Your task to perform on an android device: Search for sushi restaurants on Maps Image 0: 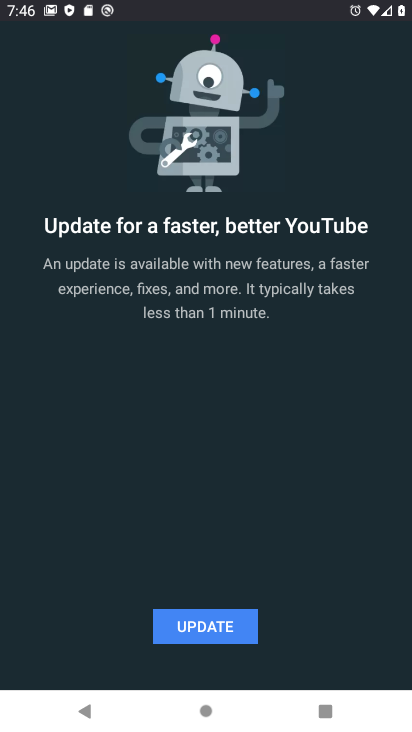
Step 0: press home button
Your task to perform on an android device: Search for sushi restaurants on Maps Image 1: 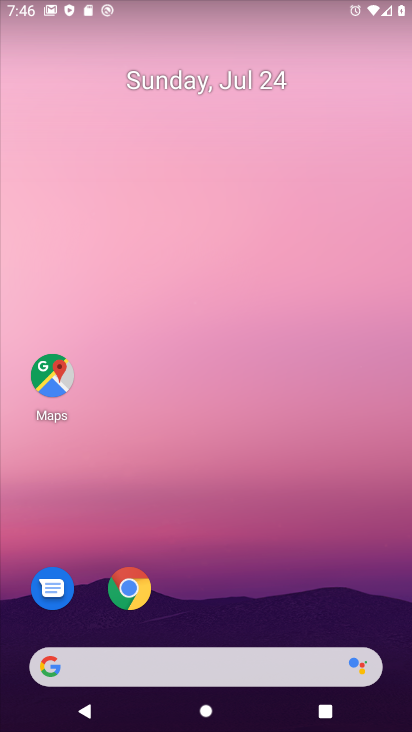
Step 1: drag from (271, 584) to (347, 175)
Your task to perform on an android device: Search for sushi restaurants on Maps Image 2: 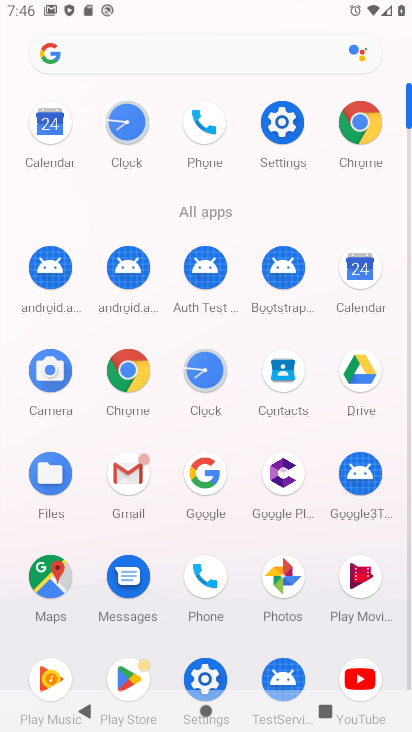
Step 2: click (47, 576)
Your task to perform on an android device: Search for sushi restaurants on Maps Image 3: 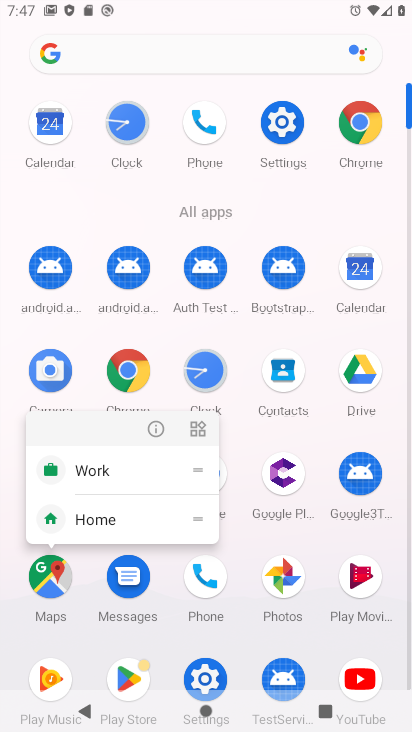
Step 3: click (48, 589)
Your task to perform on an android device: Search for sushi restaurants on Maps Image 4: 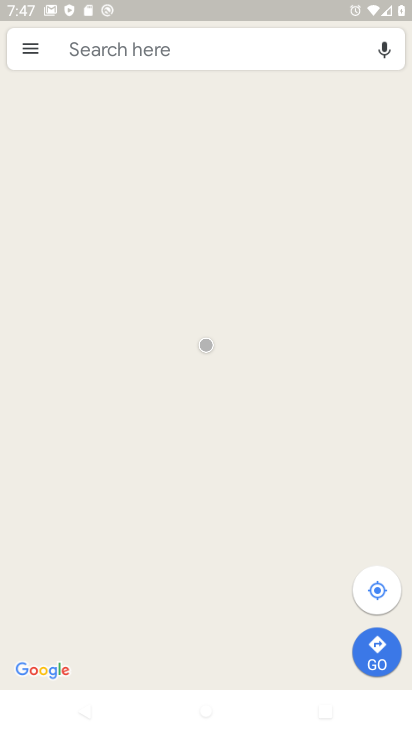
Step 4: click (206, 34)
Your task to perform on an android device: Search for sushi restaurants on Maps Image 5: 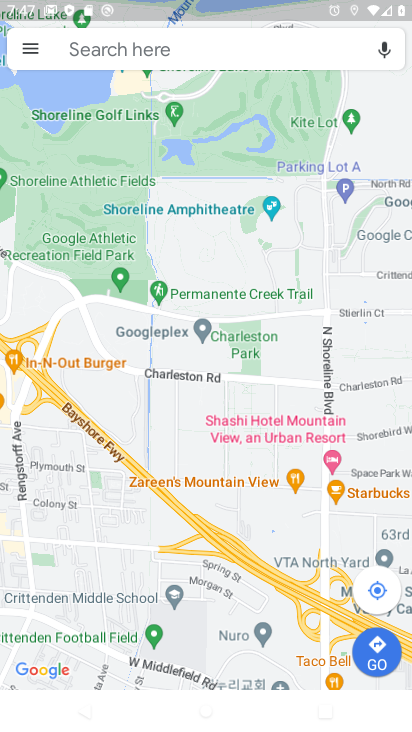
Step 5: click (199, 50)
Your task to perform on an android device: Search for sushi restaurants on Maps Image 6: 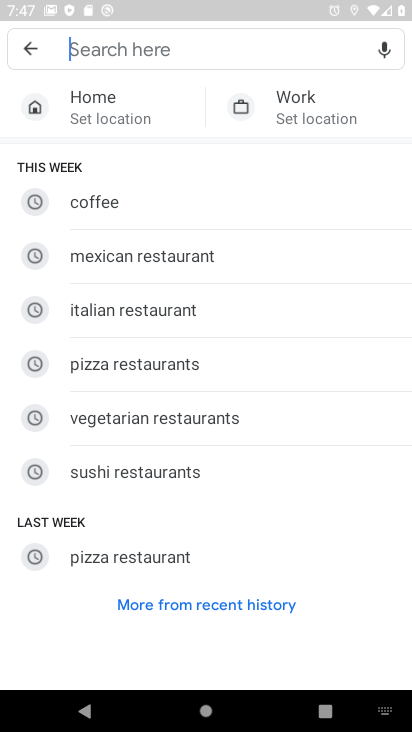
Step 6: click (147, 470)
Your task to perform on an android device: Search for sushi restaurants on Maps Image 7: 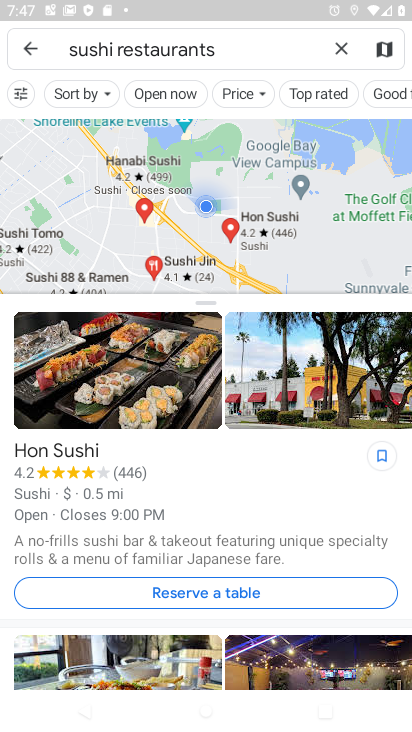
Step 7: task complete